Your task to perform on an android device: turn off airplane mode Image 0: 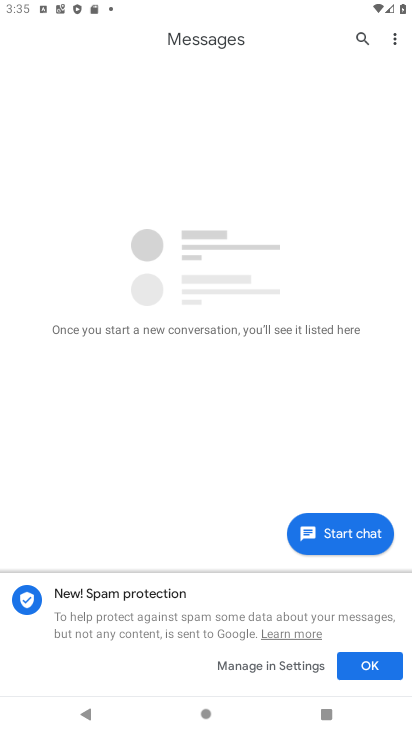
Step 0: press home button
Your task to perform on an android device: turn off airplane mode Image 1: 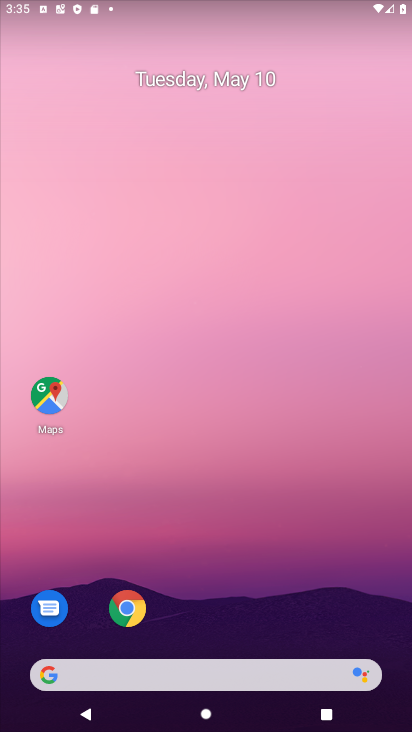
Step 1: drag from (394, 651) to (310, 73)
Your task to perform on an android device: turn off airplane mode Image 2: 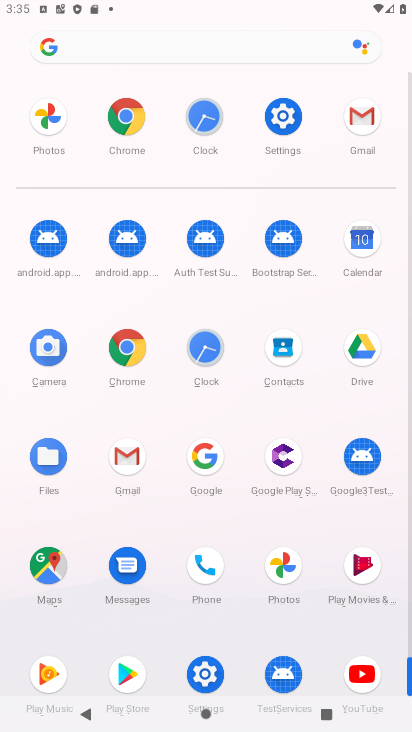
Step 2: click (206, 674)
Your task to perform on an android device: turn off airplane mode Image 3: 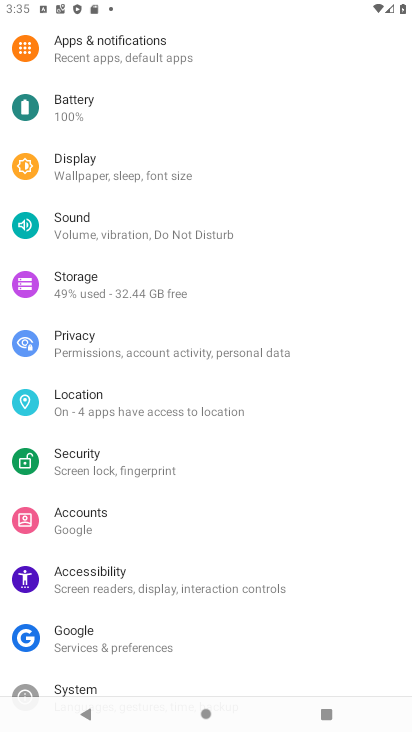
Step 3: drag from (312, 159) to (273, 389)
Your task to perform on an android device: turn off airplane mode Image 4: 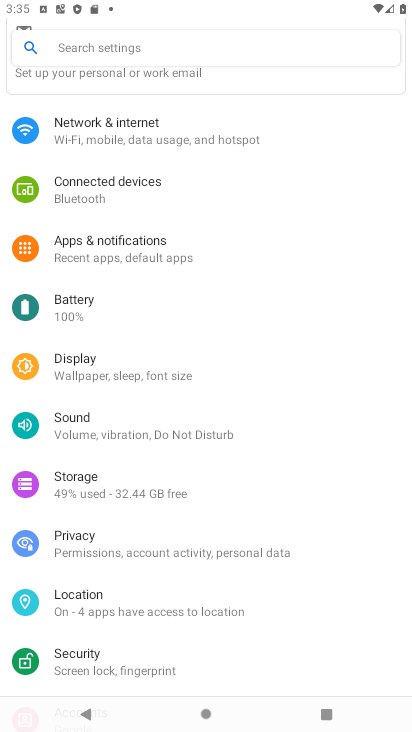
Step 4: click (79, 125)
Your task to perform on an android device: turn off airplane mode Image 5: 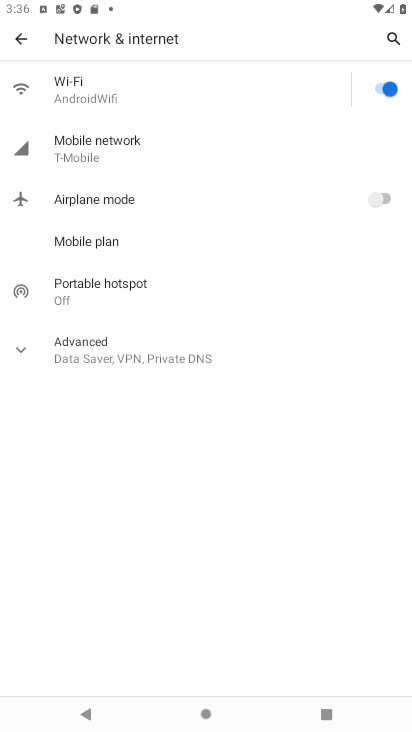
Step 5: task complete